Your task to perform on an android device: Open battery settings Image 0: 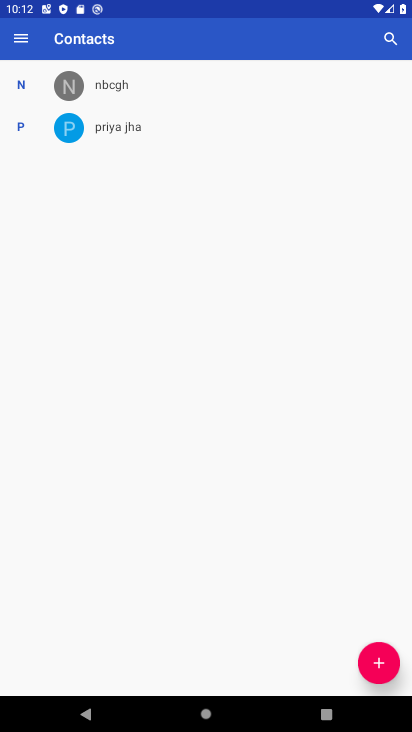
Step 0: press home button
Your task to perform on an android device: Open battery settings Image 1: 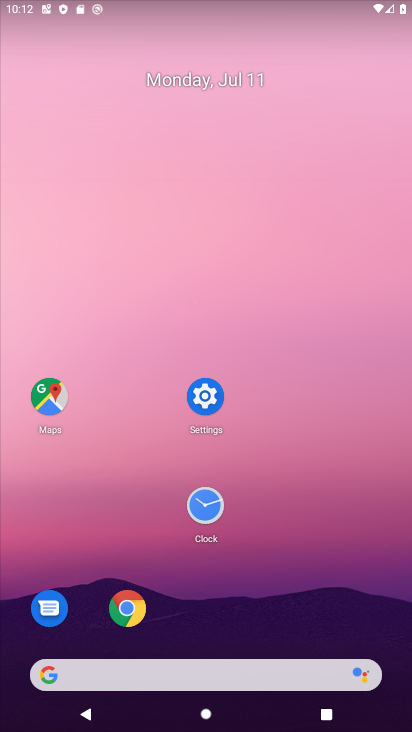
Step 1: click (203, 396)
Your task to perform on an android device: Open battery settings Image 2: 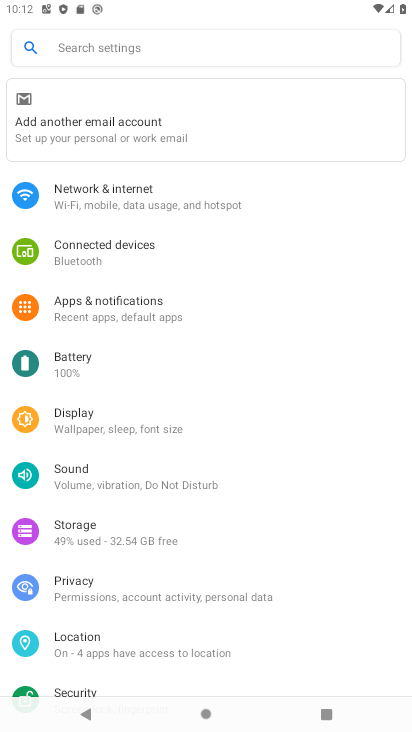
Step 2: click (73, 358)
Your task to perform on an android device: Open battery settings Image 3: 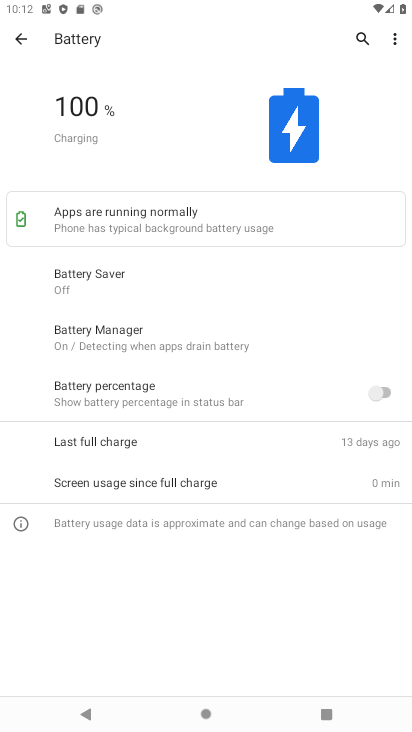
Step 3: task complete